Your task to perform on an android device: turn on translation in the chrome app Image 0: 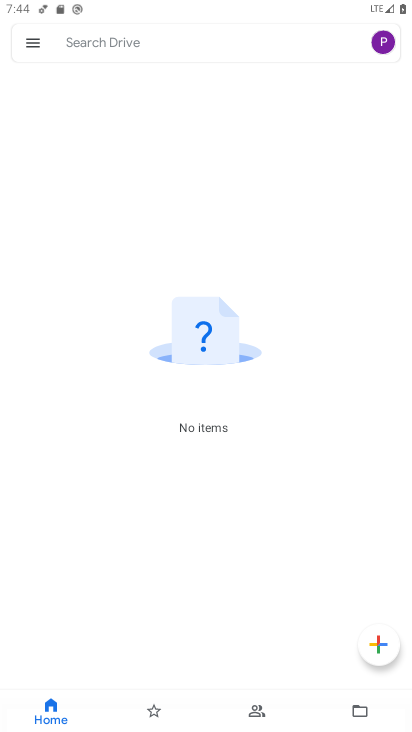
Step 0: press home button
Your task to perform on an android device: turn on translation in the chrome app Image 1: 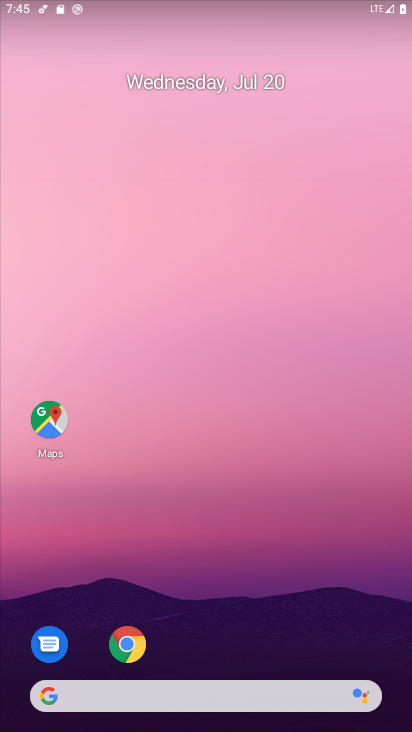
Step 1: click (134, 638)
Your task to perform on an android device: turn on translation in the chrome app Image 2: 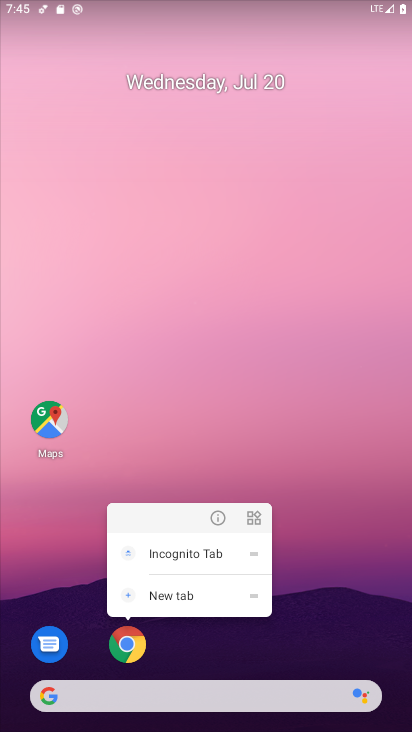
Step 2: click (125, 647)
Your task to perform on an android device: turn on translation in the chrome app Image 3: 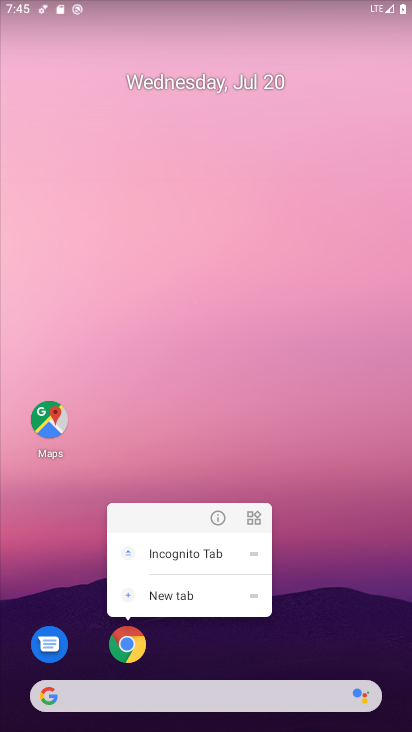
Step 3: click (125, 647)
Your task to perform on an android device: turn on translation in the chrome app Image 4: 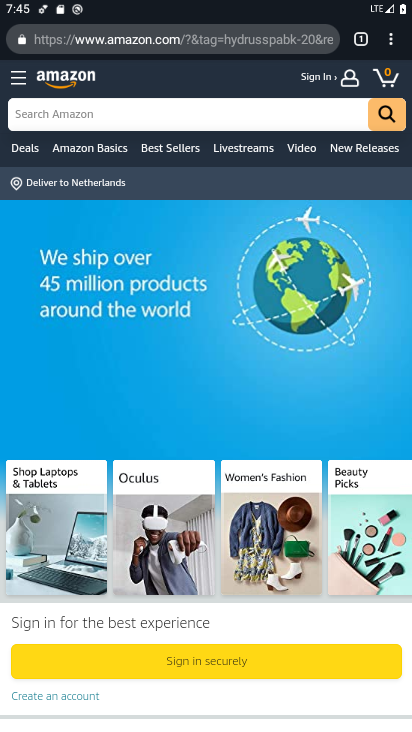
Step 4: click (390, 34)
Your task to perform on an android device: turn on translation in the chrome app Image 5: 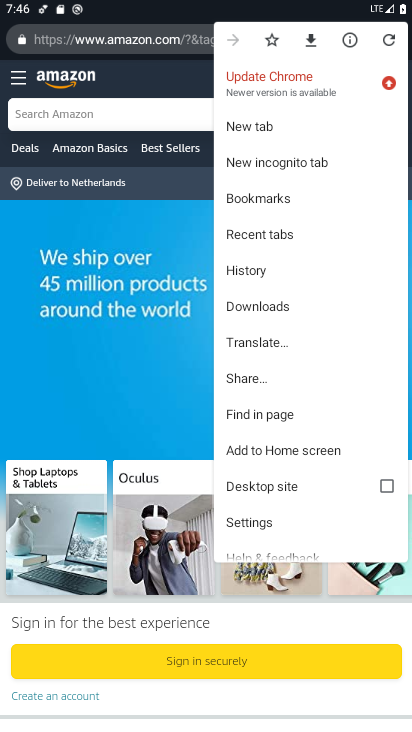
Step 5: click (263, 523)
Your task to perform on an android device: turn on translation in the chrome app Image 6: 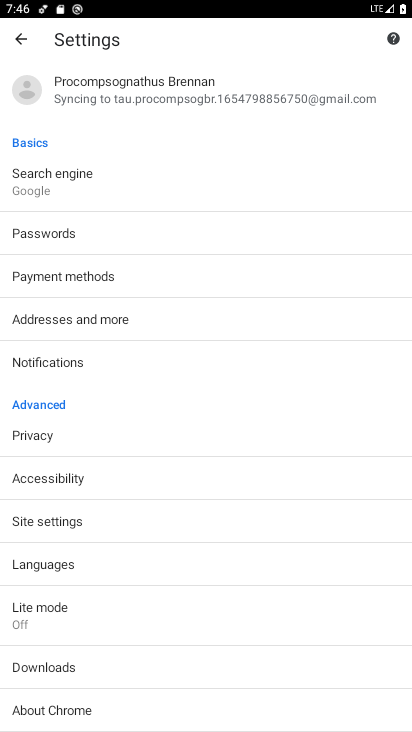
Step 6: click (28, 579)
Your task to perform on an android device: turn on translation in the chrome app Image 7: 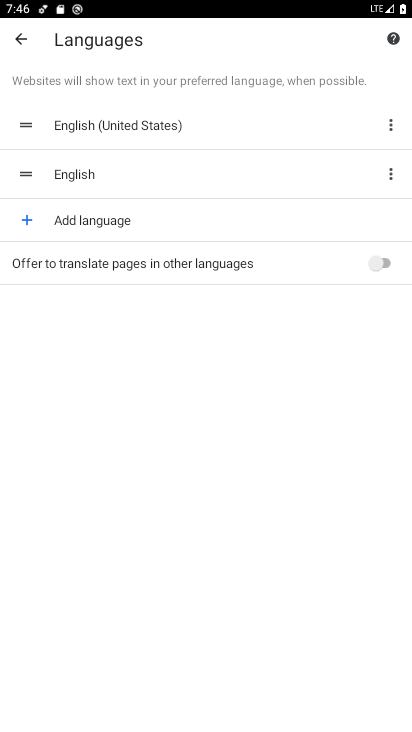
Step 7: click (380, 266)
Your task to perform on an android device: turn on translation in the chrome app Image 8: 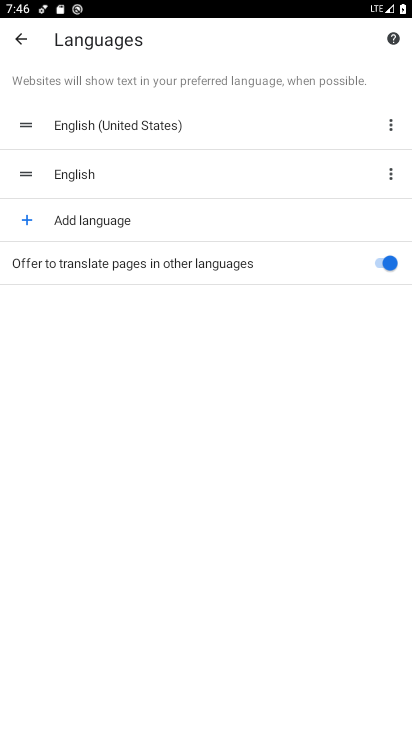
Step 8: task complete